Your task to perform on an android device: Open CNN.com Image 0: 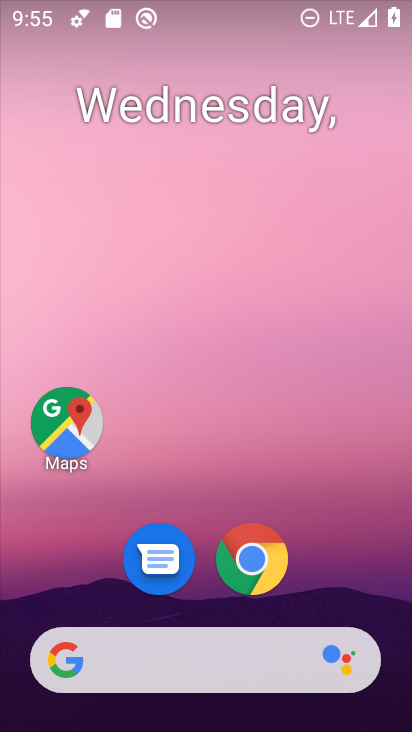
Step 0: click (171, 660)
Your task to perform on an android device: Open CNN.com Image 1: 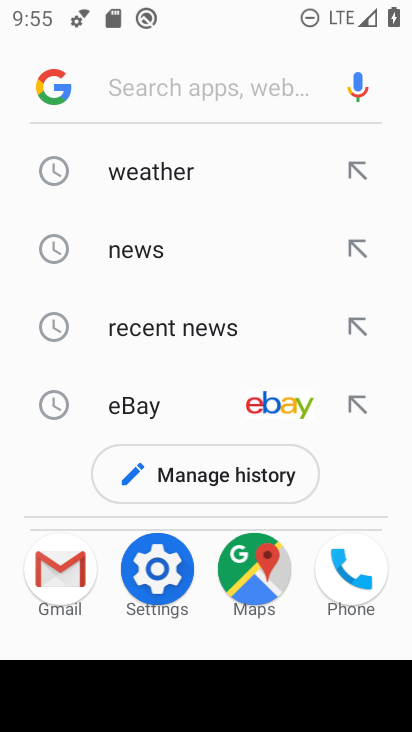
Step 1: type "cnn.com"
Your task to perform on an android device: Open CNN.com Image 2: 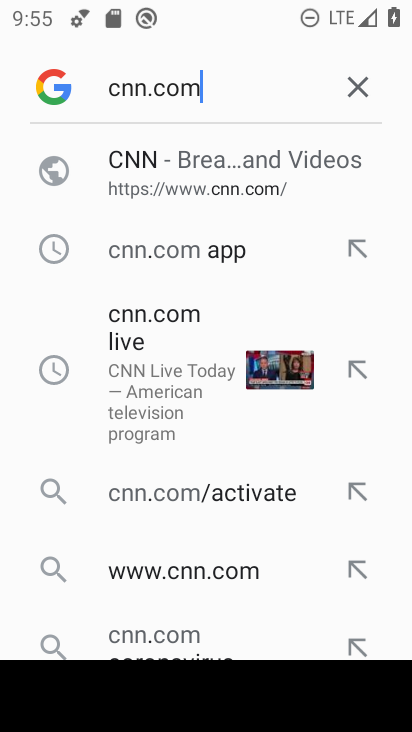
Step 2: click (141, 187)
Your task to perform on an android device: Open CNN.com Image 3: 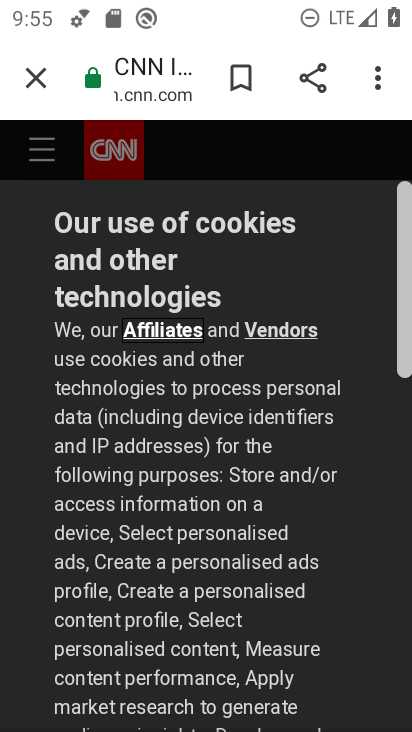
Step 3: task complete